Your task to perform on an android device: Open network settings Image 0: 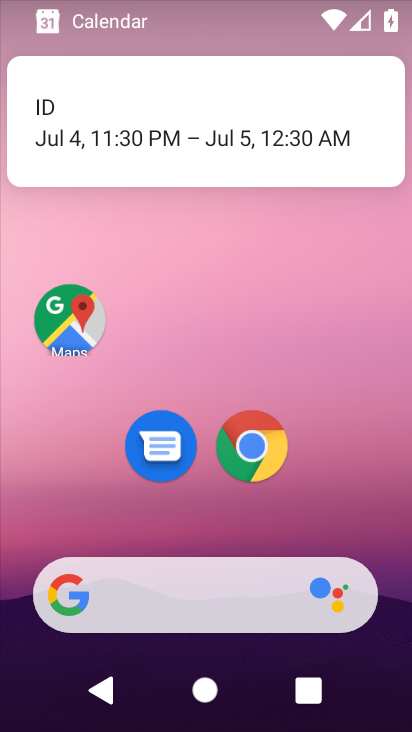
Step 0: drag from (221, 368) to (240, 54)
Your task to perform on an android device: Open network settings Image 1: 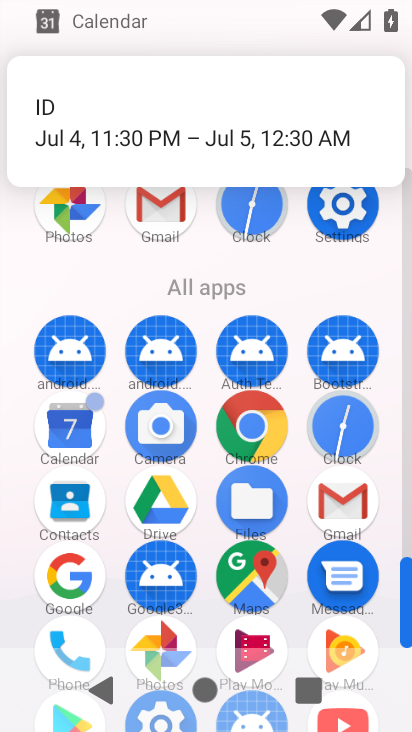
Step 1: drag from (216, 154) to (137, 0)
Your task to perform on an android device: Open network settings Image 2: 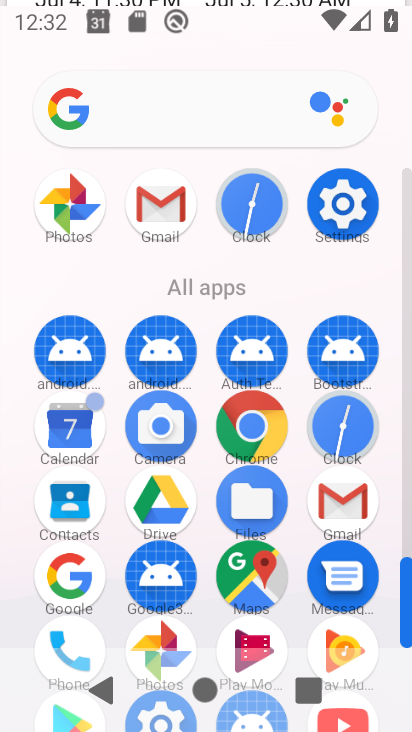
Step 2: click (338, 210)
Your task to perform on an android device: Open network settings Image 3: 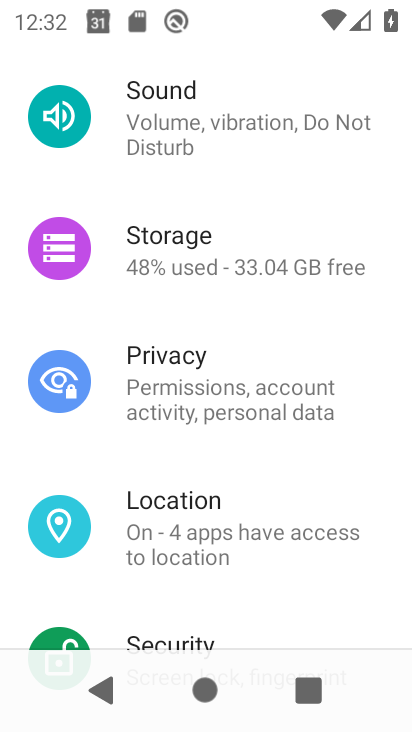
Step 3: drag from (205, 200) to (192, 673)
Your task to perform on an android device: Open network settings Image 4: 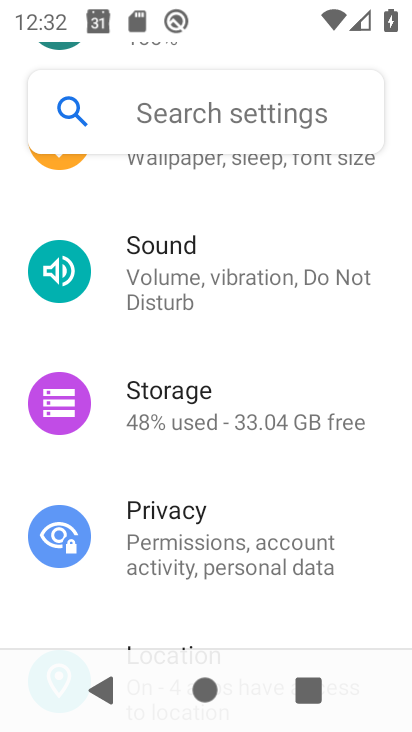
Step 4: drag from (203, 211) to (206, 650)
Your task to perform on an android device: Open network settings Image 5: 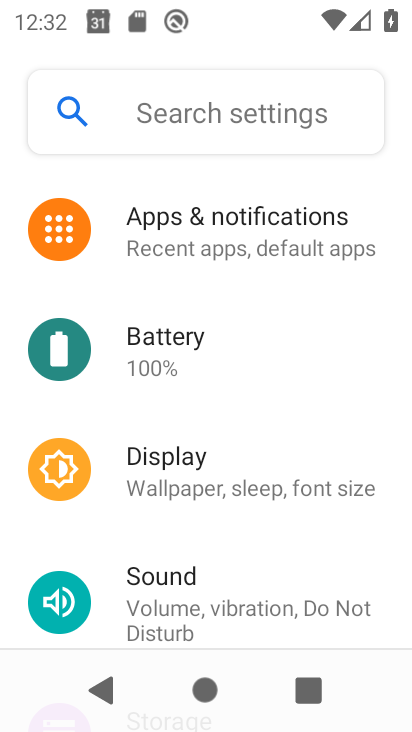
Step 5: drag from (196, 280) to (174, 727)
Your task to perform on an android device: Open network settings Image 6: 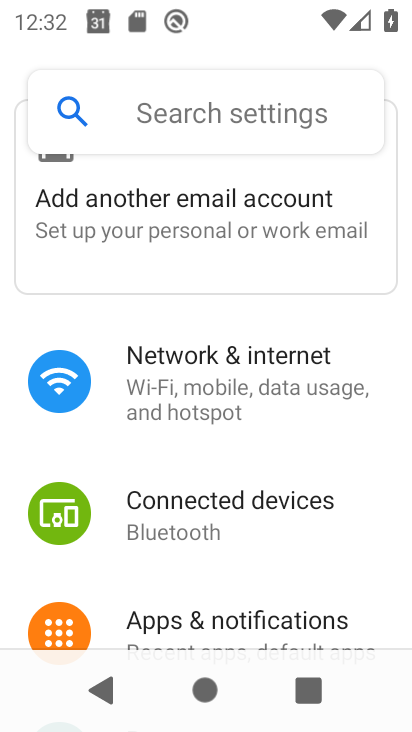
Step 6: click (186, 377)
Your task to perform on an android device: Open network settings Image 7: 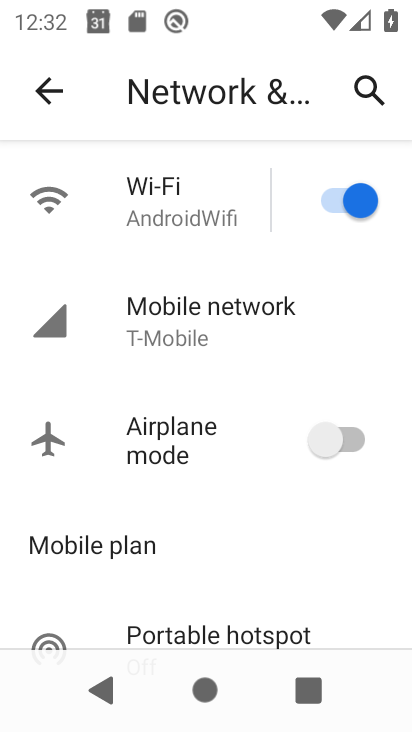
Step 7: task complete